Your task to perform on an android device: change notification settings in the gmail app Image 0: 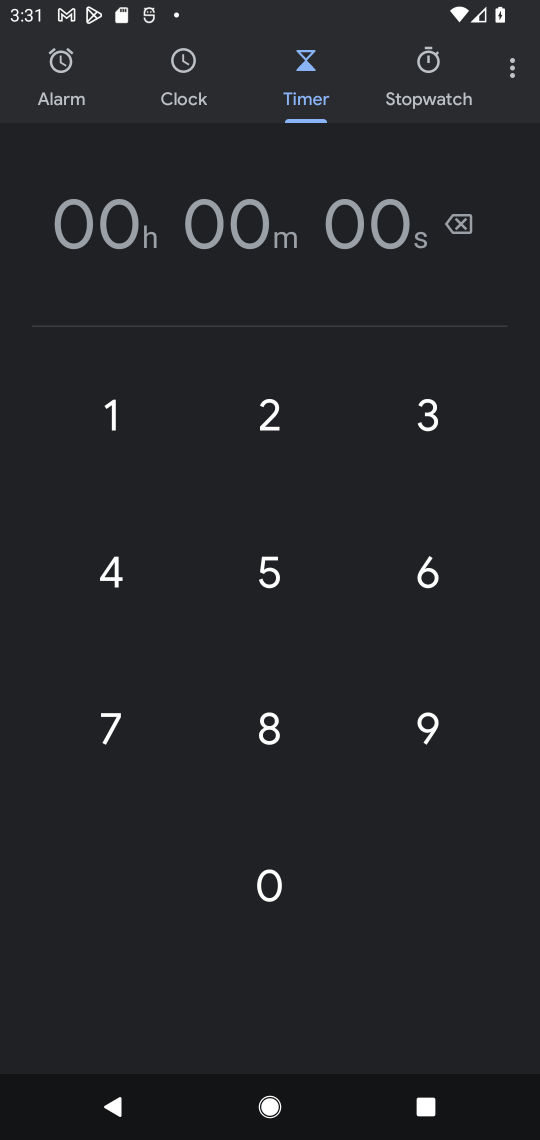
Step 0: press home button
Your task to perform on an android device: change notification settings in the gmail app Image 1: 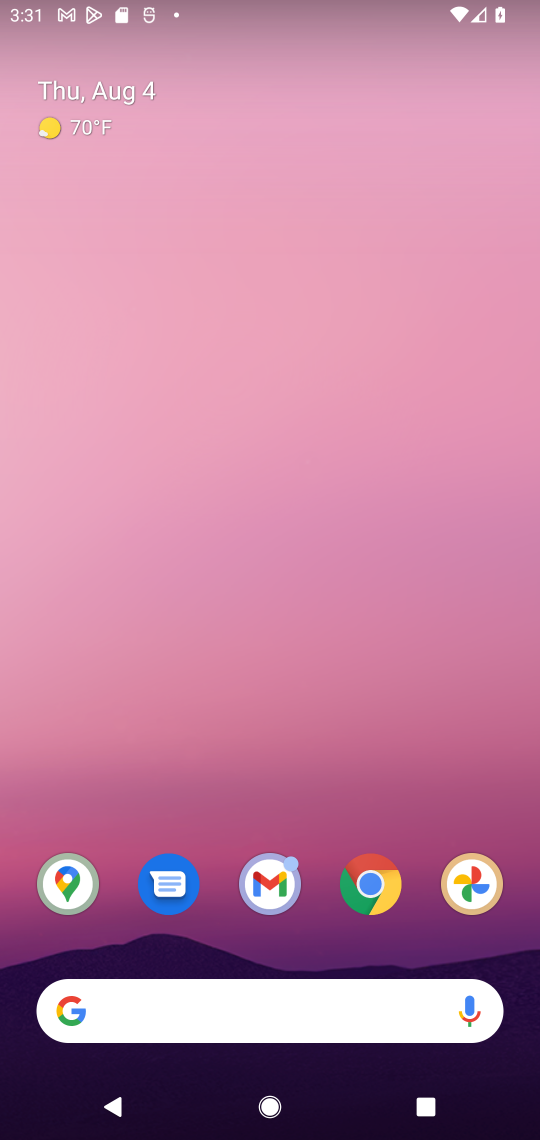
Step 1: drag from (326, 955) to (422, 197)
Your task to perform on an android device: change notification settings in the gmail app Image 2: 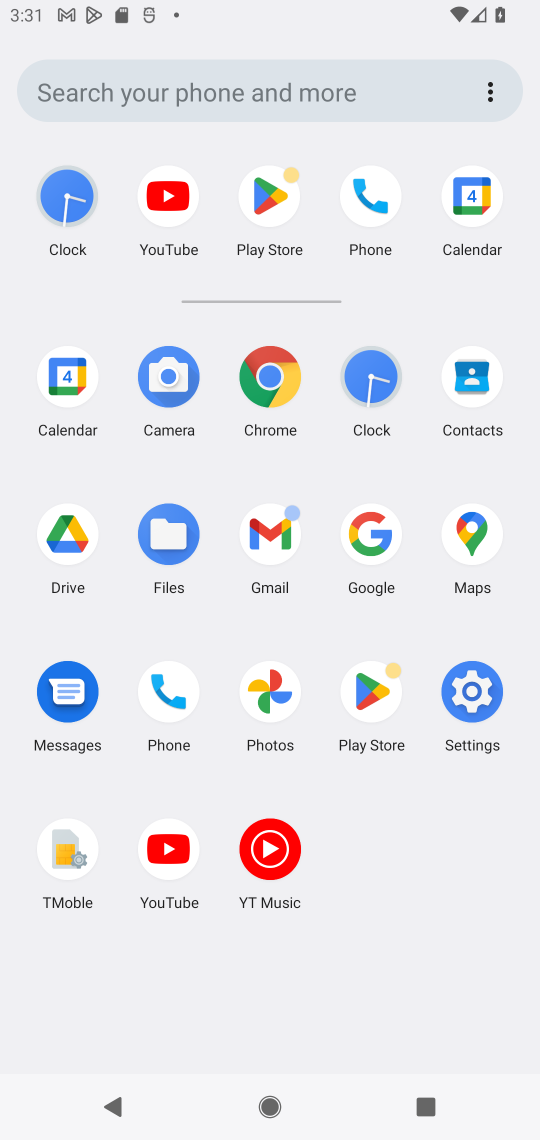
Step 2: click (281, 535)
Your task to perform on an android device: change notification settings in the gmail app Image 3: 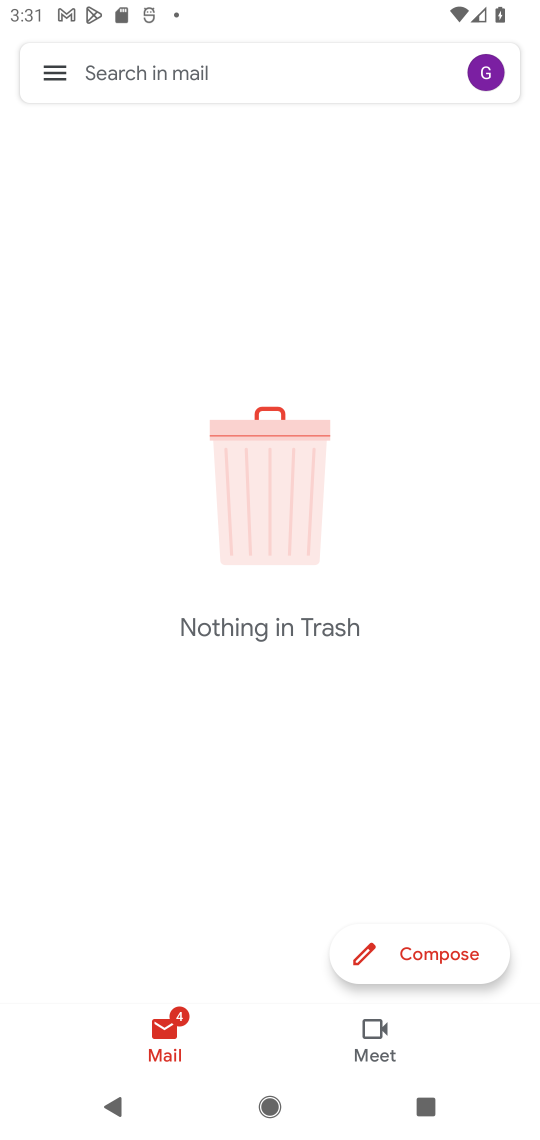
Step 3: task complete